Your task to perform on an android device: turn on showing notifications on the lock screen Image 0: 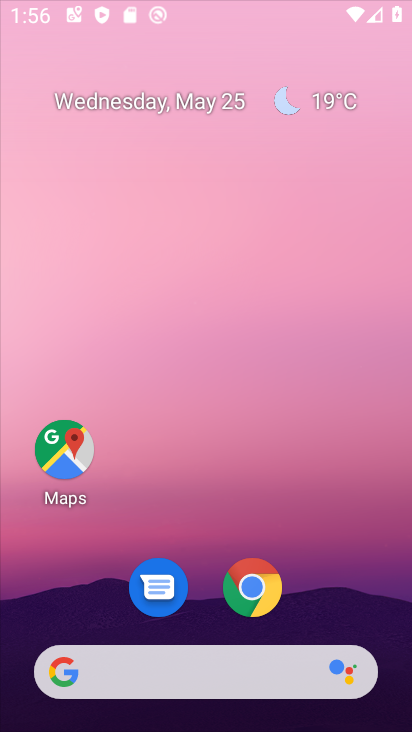
Step 0: press home button
Your task to perform on an android device: turn on showing notifications on the lock screen Image 1: 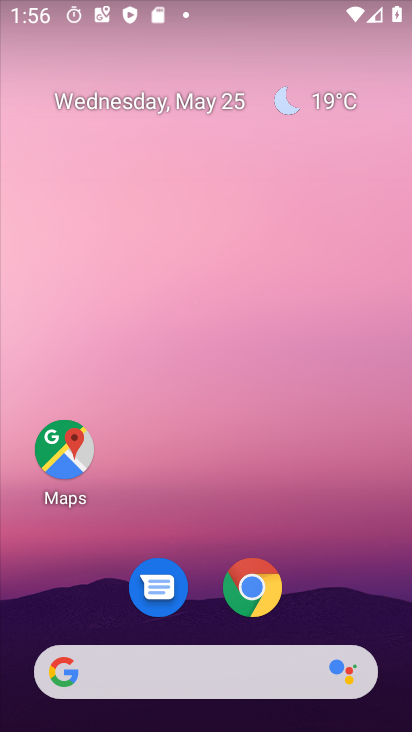
Step 1: drag from (206, 617) to (226, 144)
Your task to perform on an android device: turn on showing notifications on the lock screen Image 2: 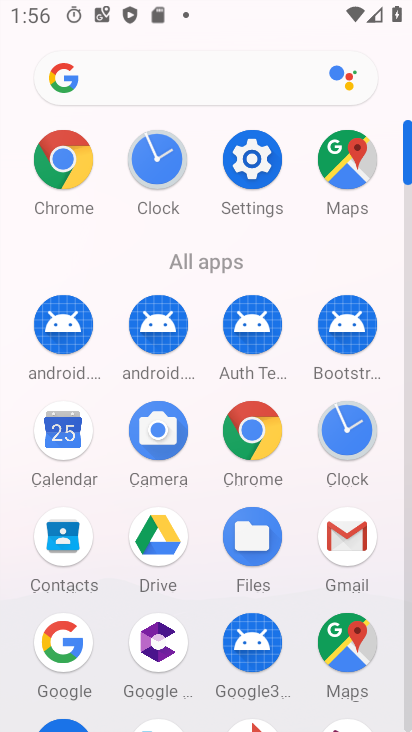
Step 2: click (248, 155)
Your task to perform on an android device: turn on showing notifications on the lock screen Image 3: 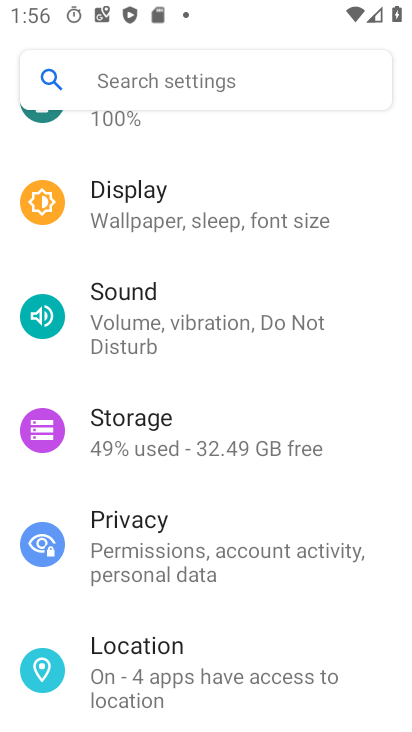
Step 3: drag from (182, 277) to (221, 620)
Your task to perform on an android device: turn on showing notifications on the lock screen Image 4: 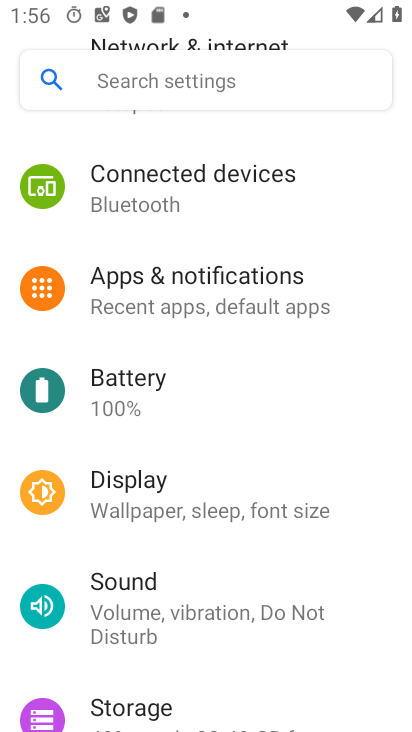
Step 4: click (166, 284)
Your task to perform on an android device: turn on showing notifications on the lock screen Image 5: 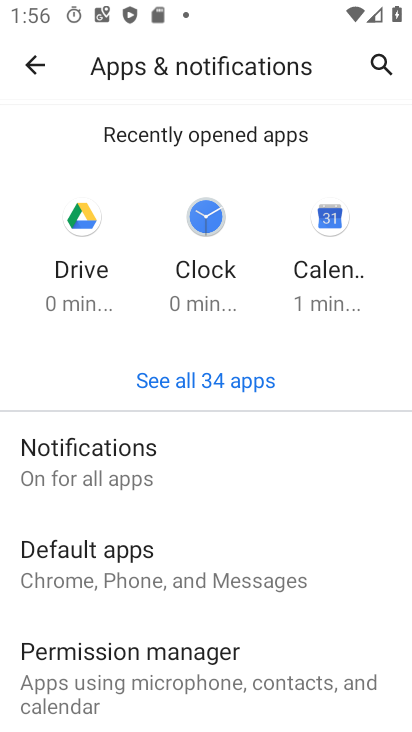
Step 5: click (147, 474)
Your task to perform on an android device: turn on showing notifications on the lock screen Image 6: 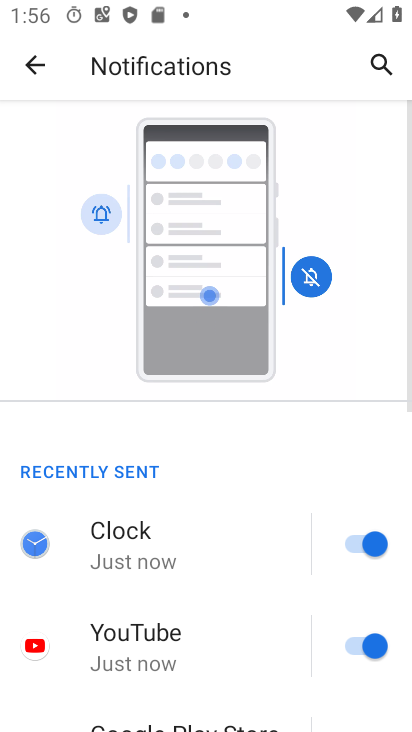
Step 6: drag from (220, 592) to (214, 310)
Your task to perform on an android device: turn on showing notifications on the lock screen Image 7: 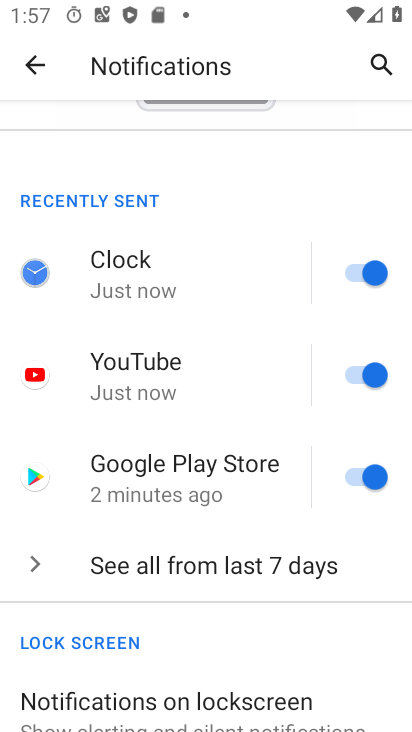
Step 7: click (167, 705)
Your task to perform on an android device: turn on showing notifications on the lock screen Image 8: 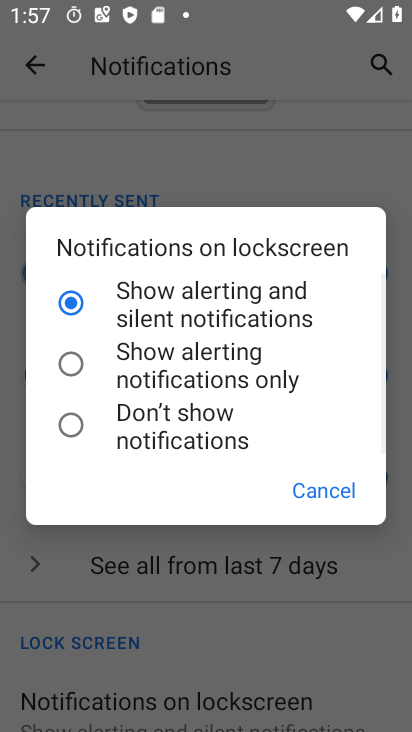
Step 8: task complete